Your task to perform on an android device: Add "dell xps" to the cart on newegg, then select checkout. Image 0: 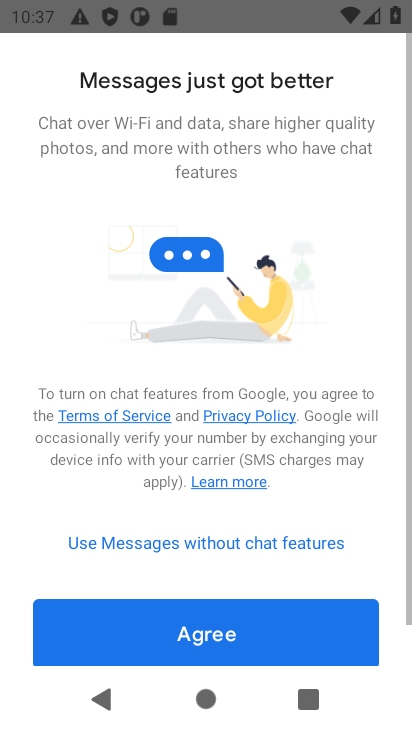
Step 0: press home button
Your task to perform on an android device: Add "dell xps" to the cart on newegg, then select checkout. Image 1: 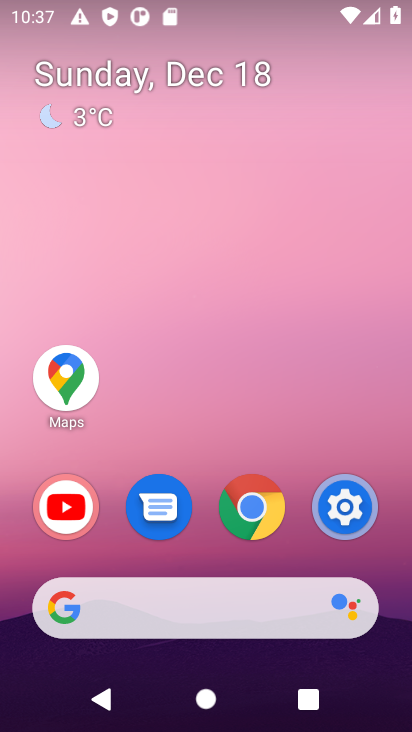
Step 1: click (239, 515)
Your task to perform on an android device: Add "dell xps" to the cart on newegg, then select checkout. Image 2: 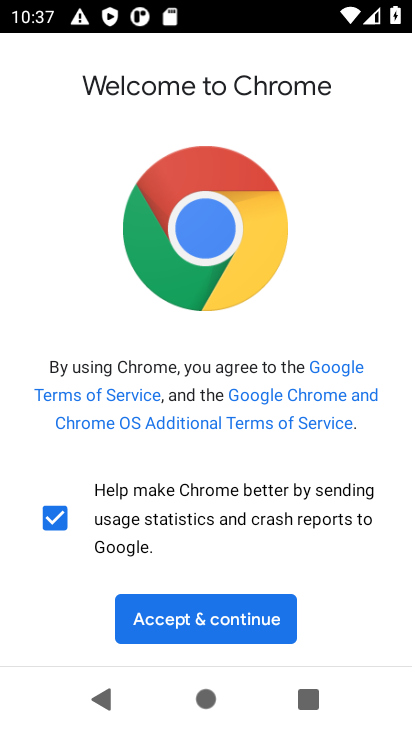
Step 2: click (201, 620)
Your task to perform on an android device: Add "dell xps" to the cart on newegg, then select checkout. Image 3: 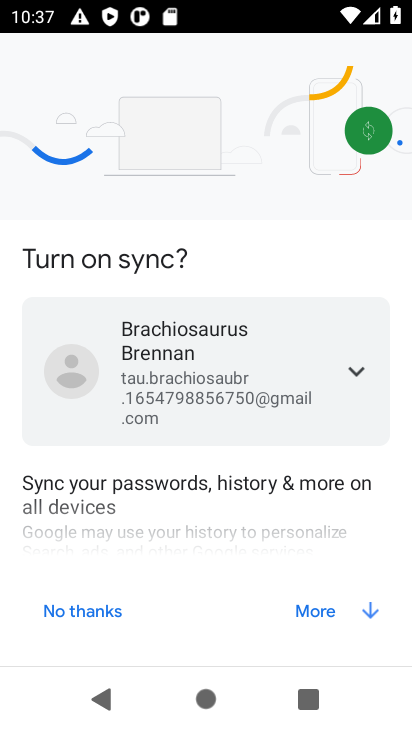
Step 3: click (98, 610)
Your task to perform on an android device: Add "dell xps" to the cart on newegg, then select checkout. Image 4: 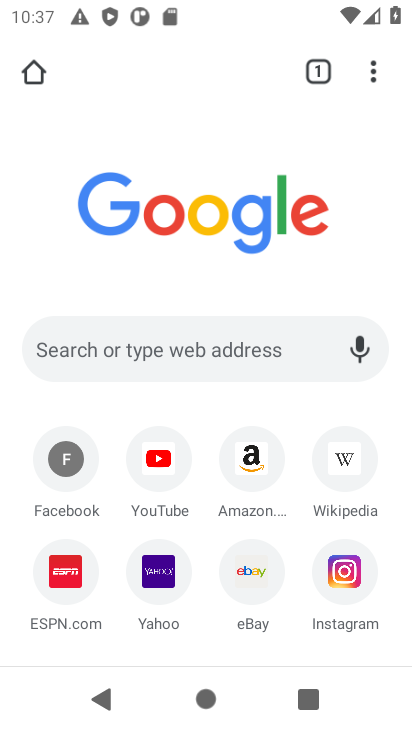
Step 4: click (174, 357)
Your task to perform on an android device: Add "dell xps" to the cart on newegg, then select checkout. Image 5: 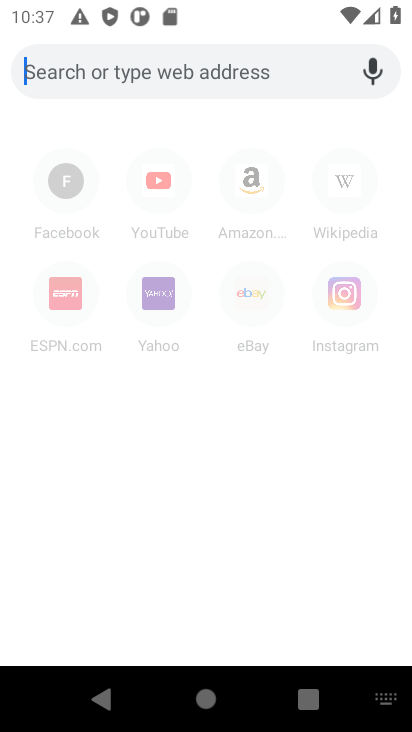
Step 5: type "newegg.com"
Your task to perform on an android device: Add "dell xps" to the cart on newegg, then select checkout. Image 6: 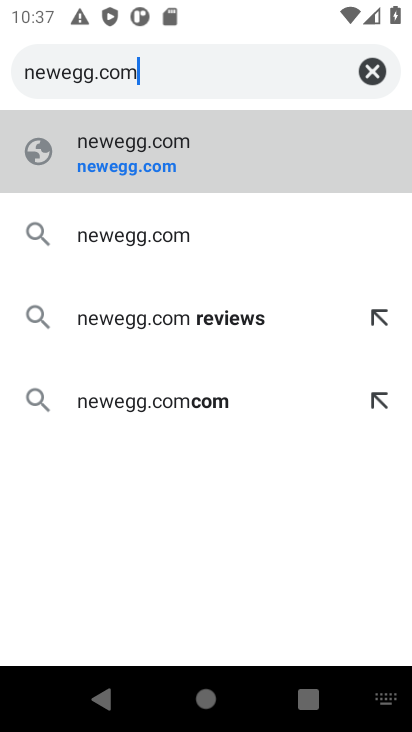
Step 6: click (130, 168)
Your task to perform on an android device: Add "dell xps" to the cart on newegg, then select checkout. Image 7: 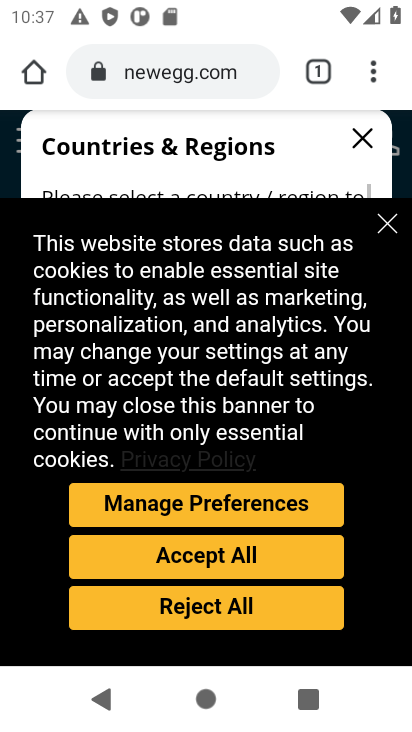
Step 7: click (391, 227)
Your task to perform on an android device: Add "dell xps" to the cart on newegg, then select checkout. Image 8: 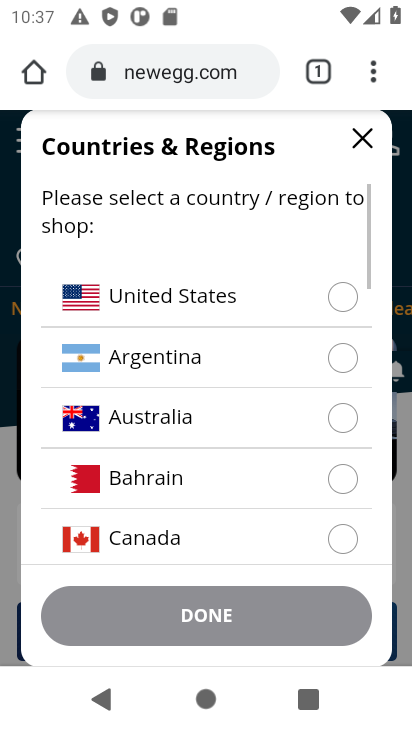
Step 8: click (112, 292)
Your task to perform on an android device: Add "dell xps" to the cart on newegg, then select checkout. Image 9: 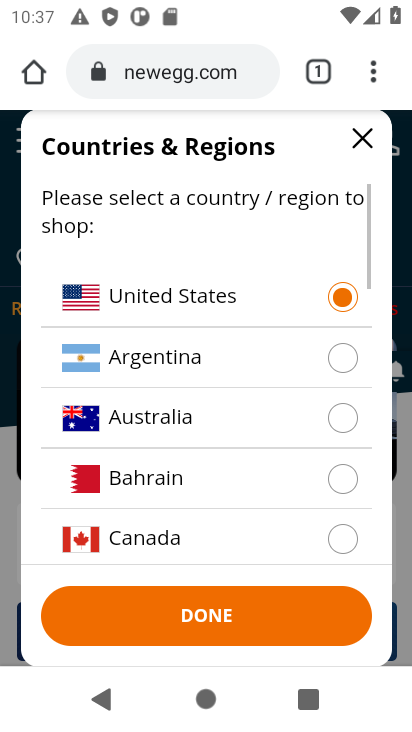
Step 9: click (193, 618)
Your task to perform on an android device: Add "dell xps" to the cart on newegg, then select checkout. Image 10: 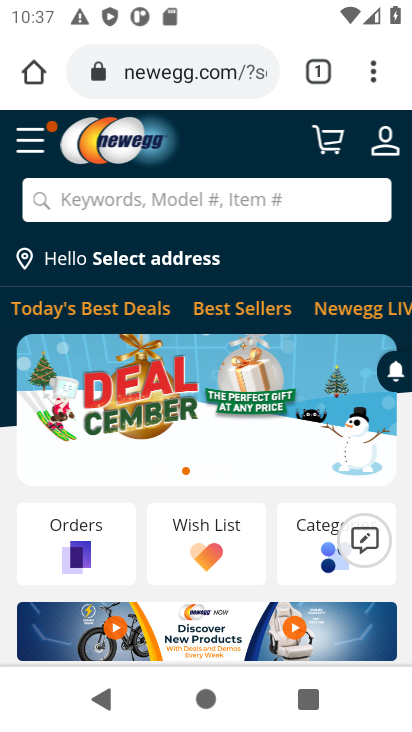
Step 10: click (117, 201)
Your task to perform on an android device: Add "dell xps" to the cart on newegg, then select checkout. Image 11: 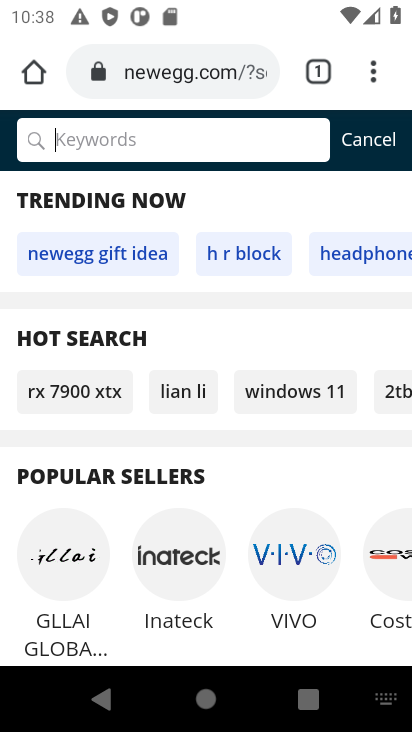
Step 11: type "dell xps"
Your task to perform on an android device: Add "dell xps" to the cart on newegg, then select checkout. Image 12: 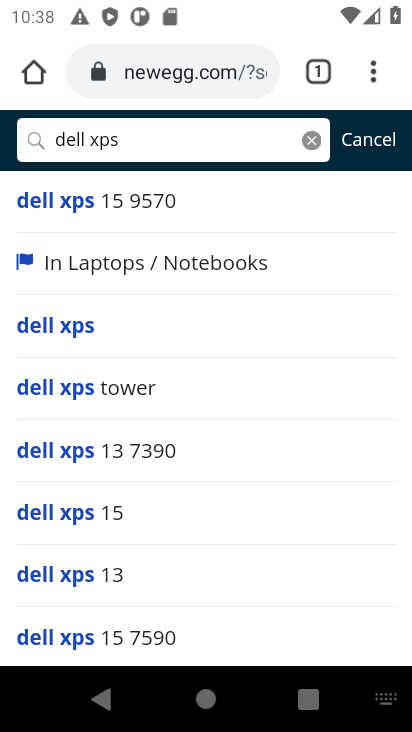
Step 12: click (36, 325)
Your task to perform on an android device: Add "dell xps" to the cart on newegg, then select checkout. Image 13: 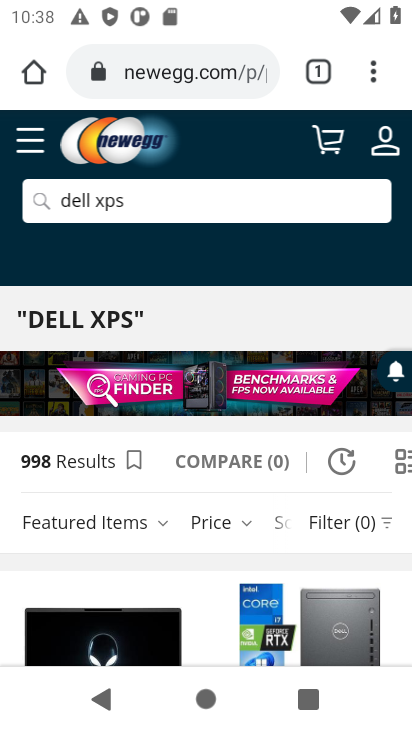
Step 13: drag from (187, 572) to (199, 269)
Your task to perform on an android device: Add "dell xps" to the cart on newegg, then select checkout. Image 14: 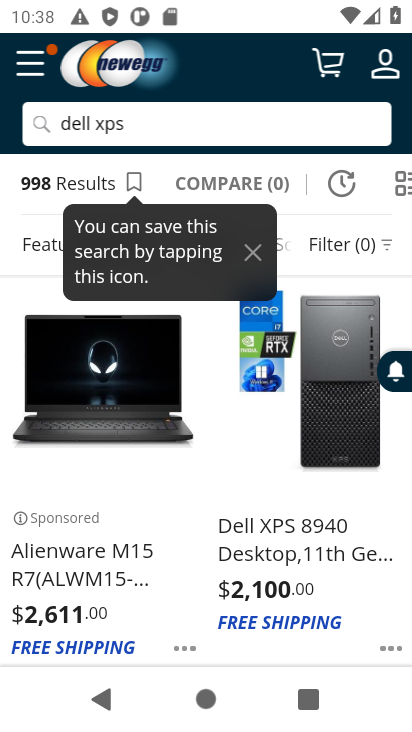
Step 14: drag from (184, 579) to (198, 341)
Your task to perform on an android device: Add "dell xps" to the cart on newegg, then select checkout. Image 15: 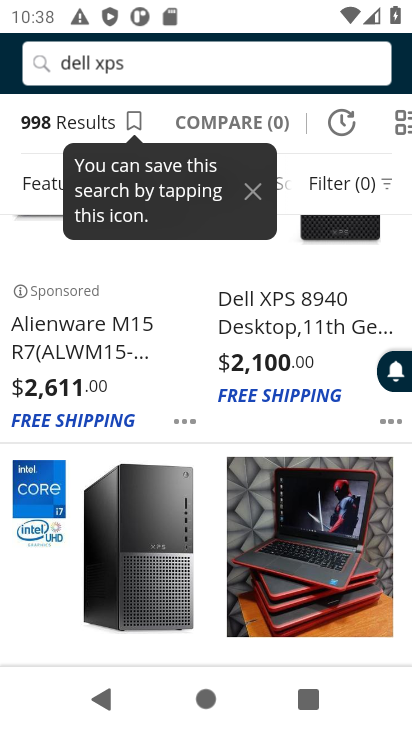
Step 15: click (276, 315)
Your task to perform on an android device: Add "dell xps" to the cart on newegg, then select checkout. Image 16: 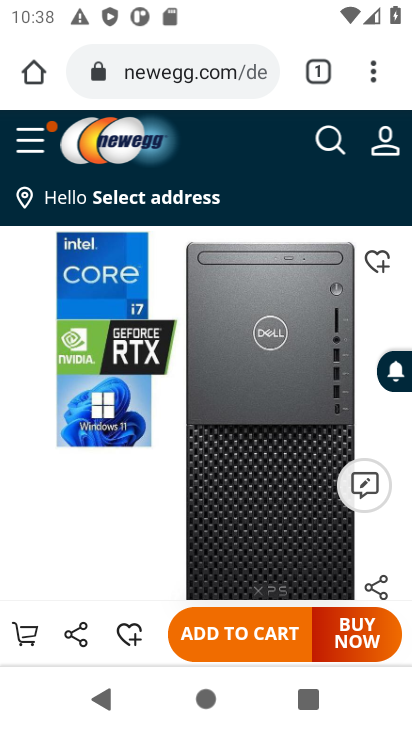
Step 16: click (248, 638)
Your task to perform on an android device: Add "dell xps" to the cart on newegg, then select checkout. Image 17: 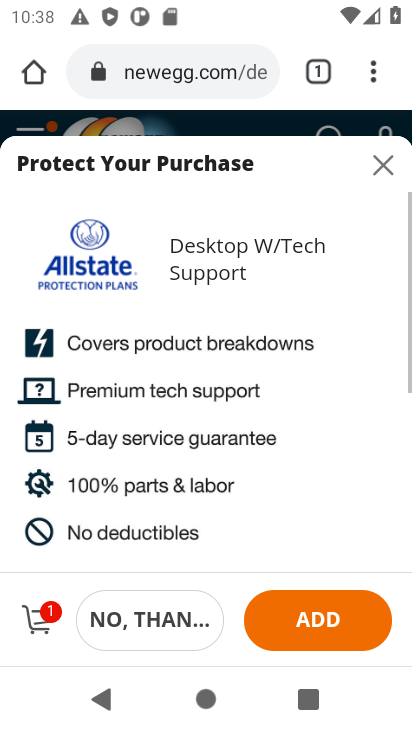
Step 17: click (37, 621)
Your task to perform on an android device: Add "dell xps" to the cart on newegg, then select checkout. Image 18: 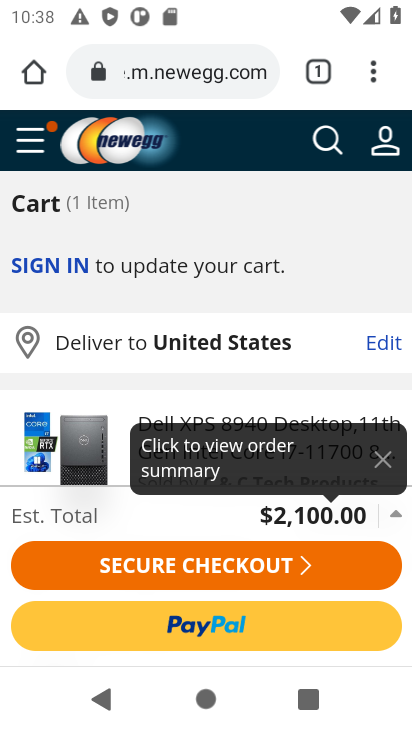
Step 18: click (196, 575)
Your task to perform on an android device: Add "dell xps" to the cart on newegg, then select checkout. Image 19: 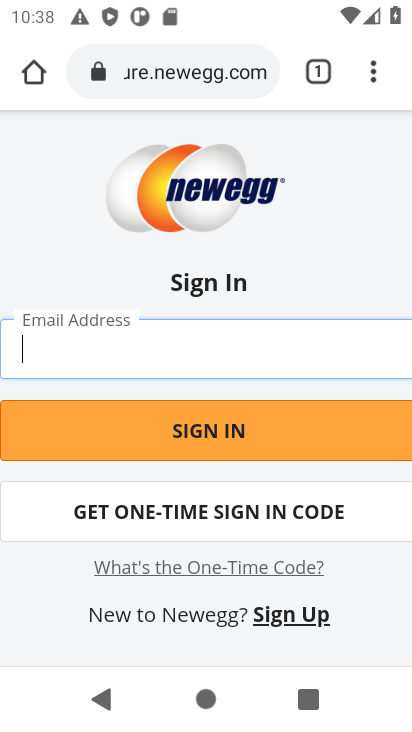
Step 19: task complete